Your task to perform on an android device: Open the map Image 0: 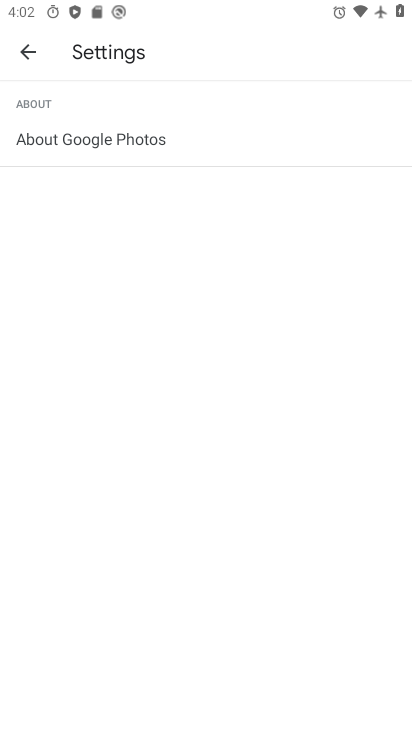
Step 0: press back button
Your task to perform on an android device: Open the map Image 1: 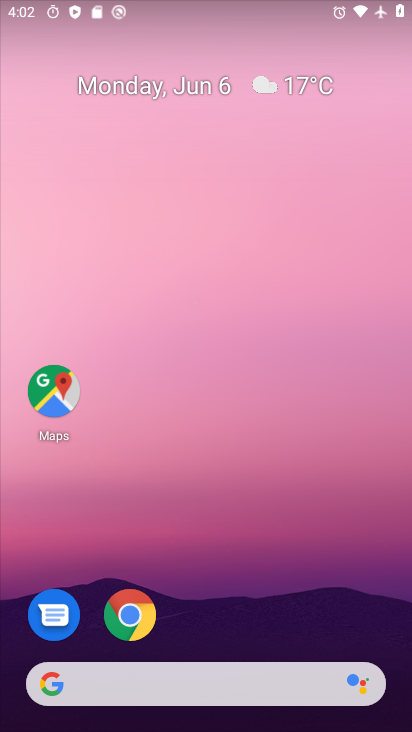
Step 1: drag from (213, 605) to (238, 43)
Your task to perform on an android device: Open the map Image 2: 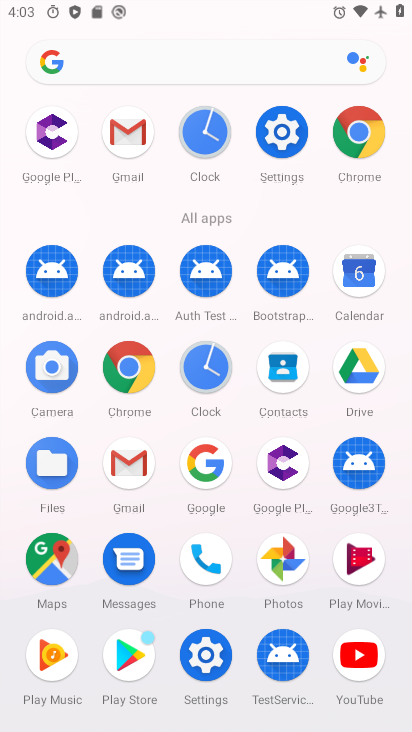
Step 2: drag from (6, 559) to (32, 230)
Your task to perform on an android device: Open the map Image 3: 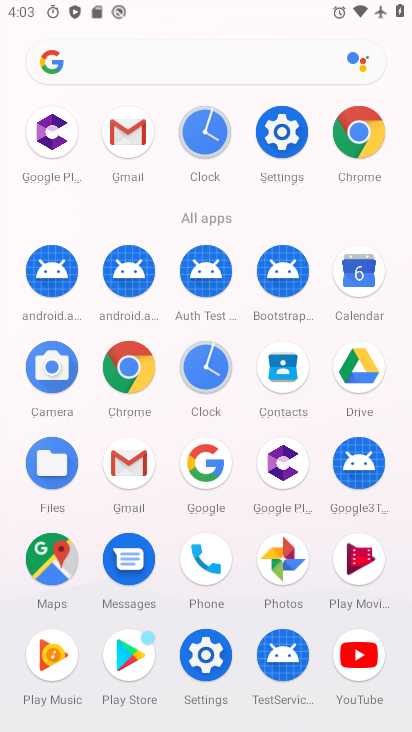
Step 3: click (49, 556)
Your task to perform on an android device: Open the map Image 4: 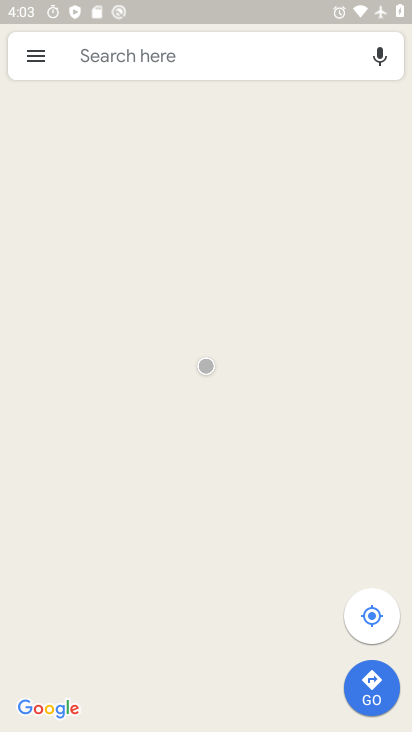
Step 4: task complete